Your task to perform on an android device: change your default location settings in chrome Image 0: 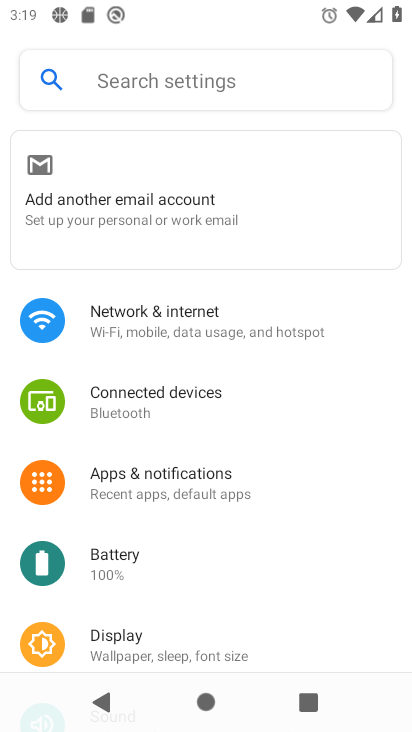
Step 0: press back button
Your task to perform on an android device: change your default location settings in chrome Image 1: 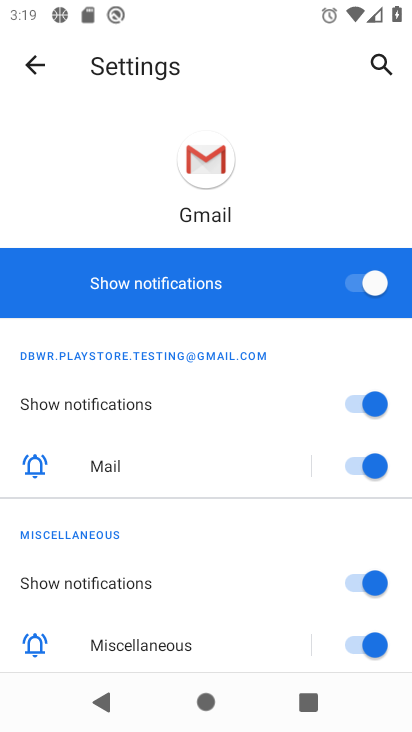
Step 1: drag from (174, 637) to (269, 179)
Your task to perform on an android device: change your default location settings in chrome Image 2: 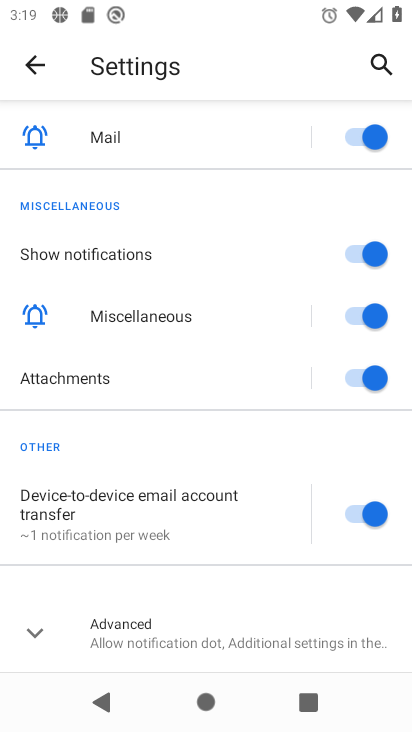
Step 2: drag from (263, 278) to (212, 656)
Your task to perform on an android device: change your default location settings in chrome Image 3: 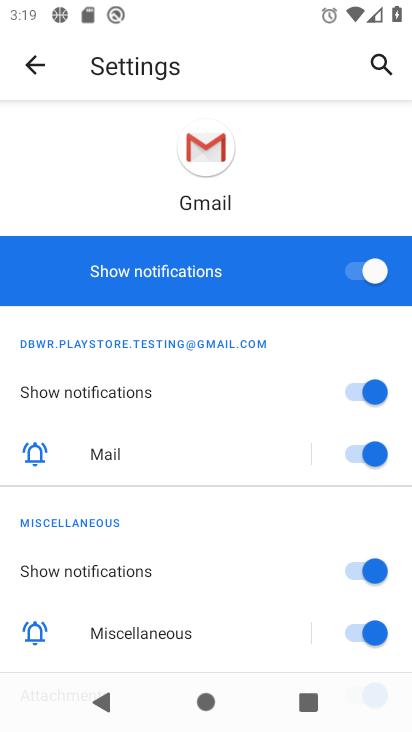
Step 3: press back button
Your task to perform on an android device: change your default location settings in chrome Image 4: 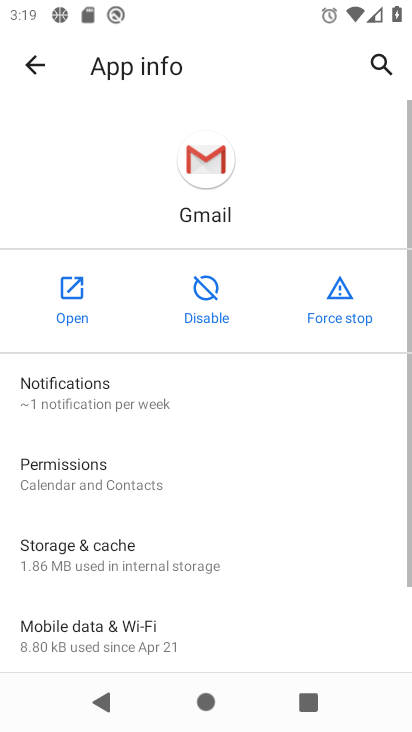
Step 4: press back button
Your task to perform on an android device: change your default location settings in chrome Image 5: 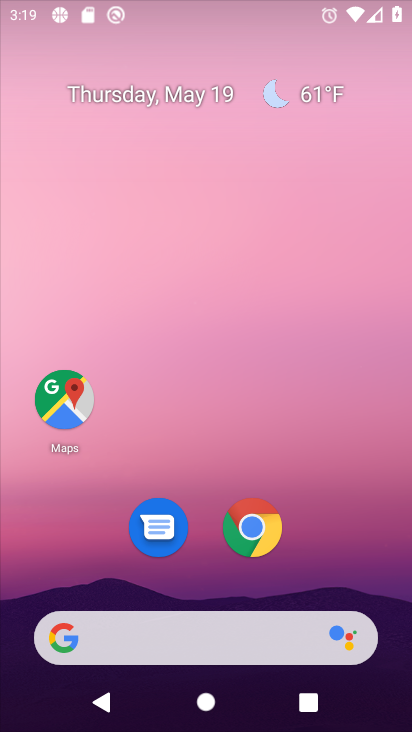
Step 5: click (268, 525)
Your task to perform on an android device: change your default location settings in chrome Image 6: 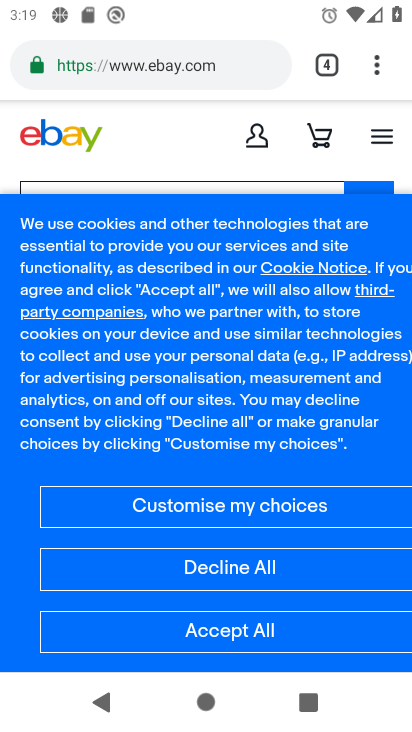
Step 6: drag from (375, 64) to (142, 567)
Your task to perform on an android device: change your default location settings in chrome Image 7: 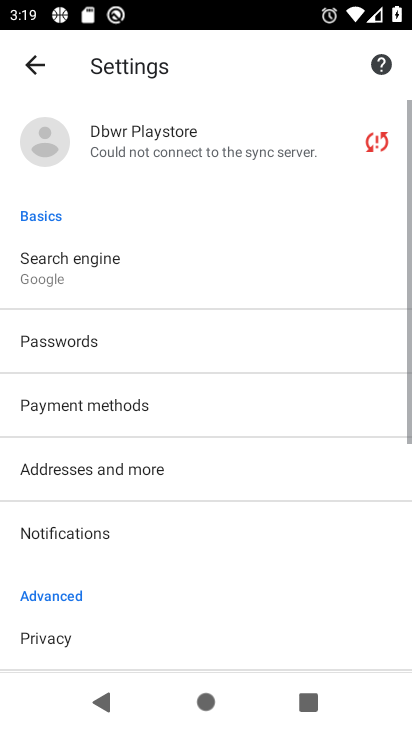
Step 7: drag from (125, 597) to (240, 78)
Your task to perform on an android device: change your default location settings in chrome Image 8: 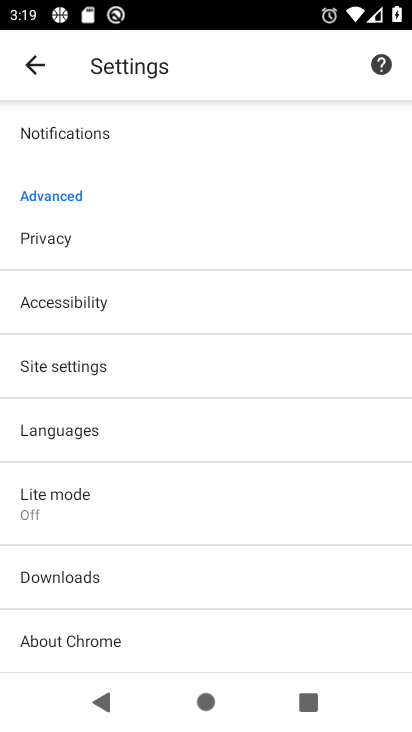
Step 8: click (79, 377)
Your task to perform on an android device: change your default location settings in chrome Image 9: 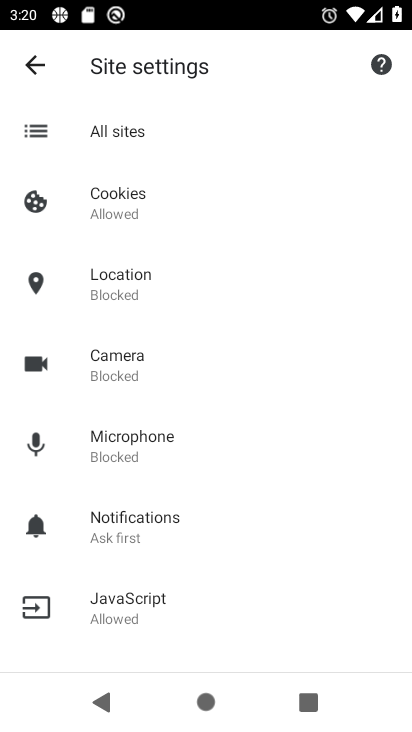
Step 9: click (137, 277)
Your task to perform on an android device: change your default location settings in chrome Image 10: 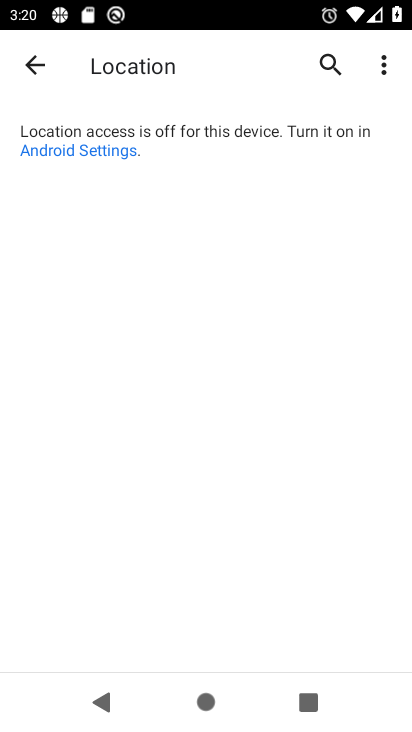
Step 10: click (79, 145)
Your task to perform on an android device: change your default location settings in chrome Image 11: 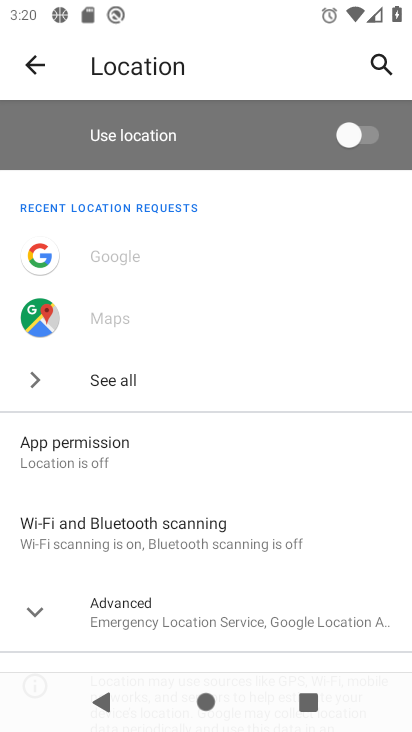
Step 11: click (335, 136)
Your task to perform on an android device: change your default location settings in chrome Image 12: 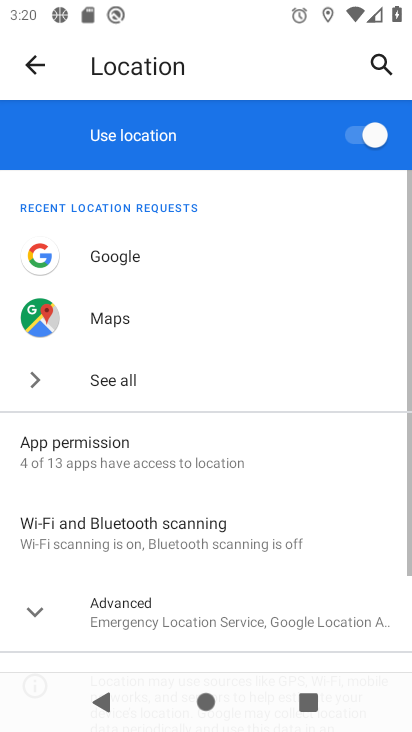
Step 12: click (36, 56)
Your task to perform on an android device: change your default location settings in chrome Image 13: 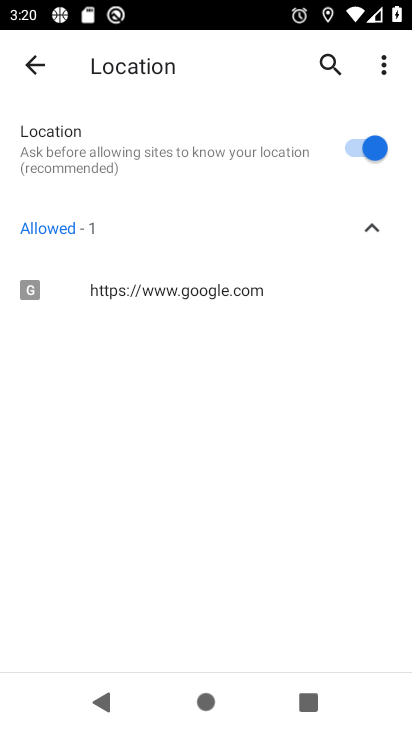
Step 13: click (200, 285)
Your task to perform on an android device: change your default location settings in chrome Image 14: 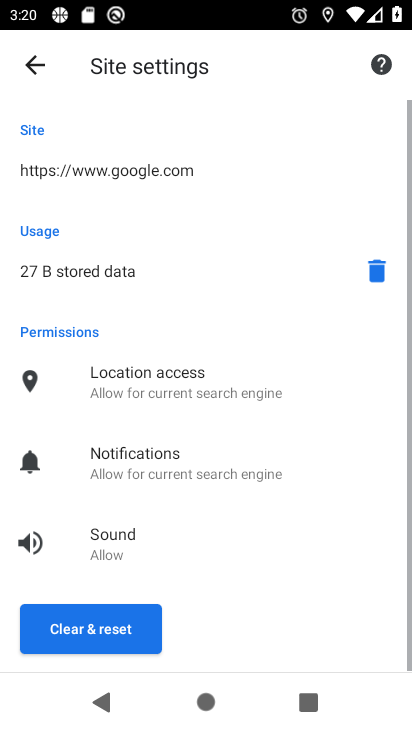
Step 14: click (164, 374)
Your task to perform on an android device: change your default location settings in chrome Image 15: 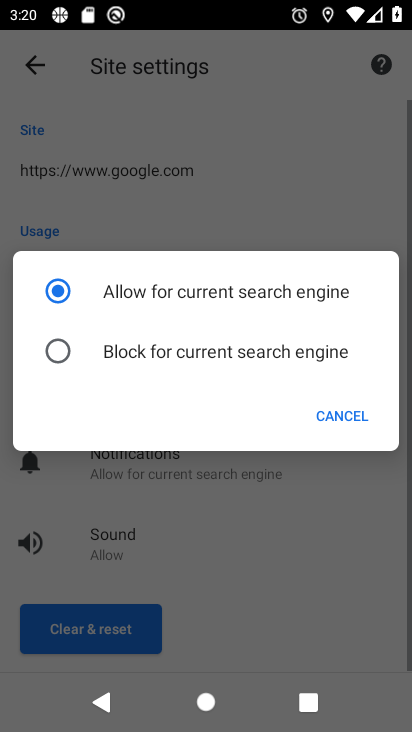
Step 15: click (62, 350)
Your task to perform on an android device: change your default location settings in chrome Image 16: 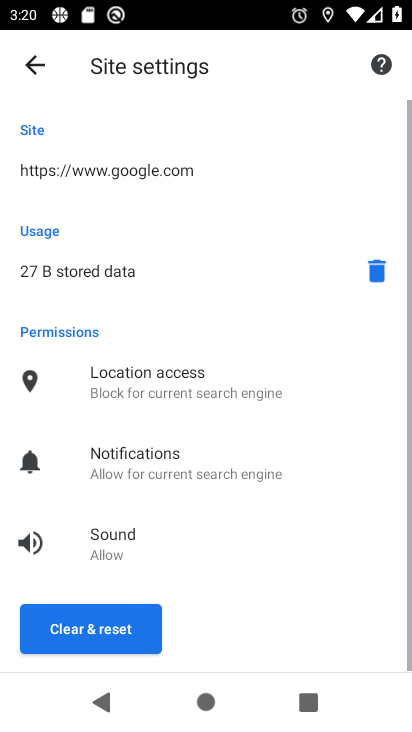
Step 16: task complete